Your task to perform on an android device: Go to Yahoo.com Image 0: 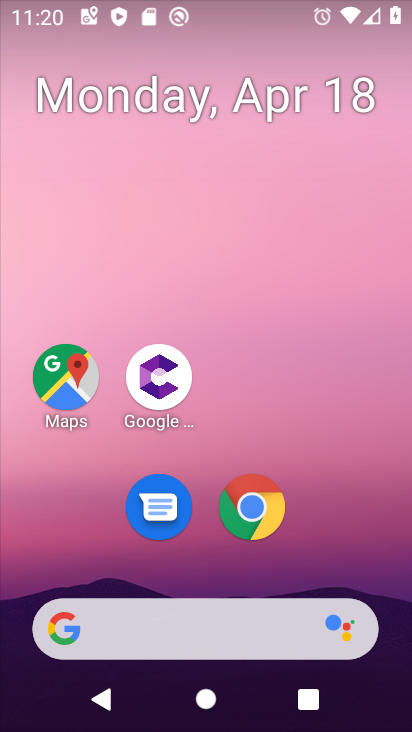
Step 0: drag from (360, 648) to (268, 240)
Your task to perform on an android device: Go to Yahoo.com Image 1: 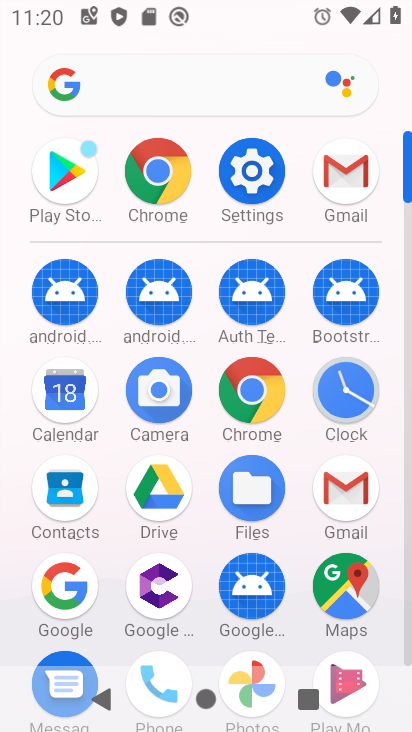
Step 1: click (153, 173)
Your task to perform on an android device: Go to Yahoo.com Image 2: 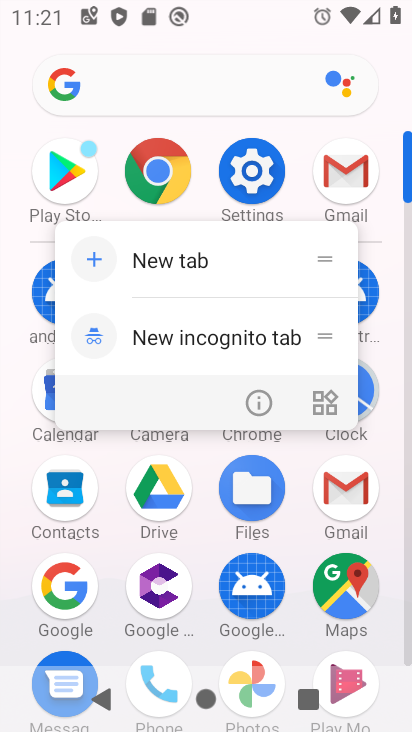
Step 2: click (138, 175)
Your task to perform on an android device: Go to Yahoo.com Image 3: 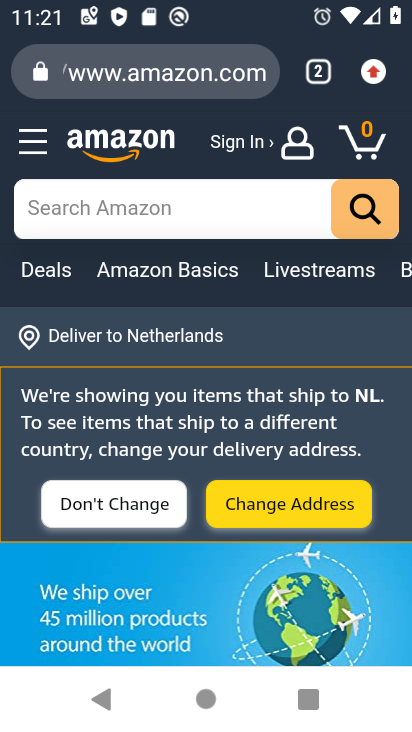
Step 3: click (318, 84)
Your task to perform on an android device: Go to Yahoo.com Image 4: 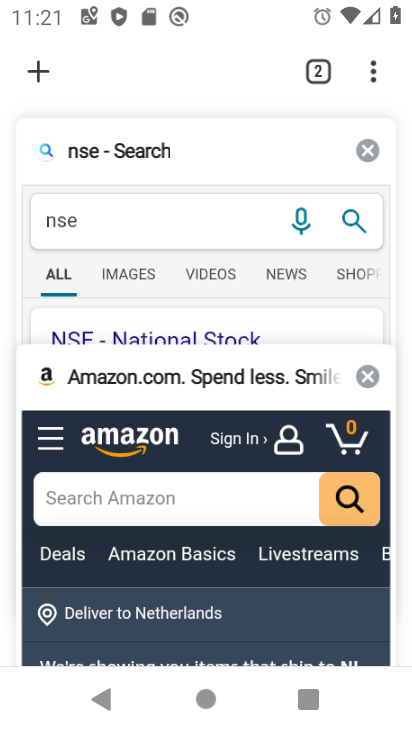
Step 4: click (31, 75)
Your task to perform on an android device: Go to Yahoo.com Image 5: 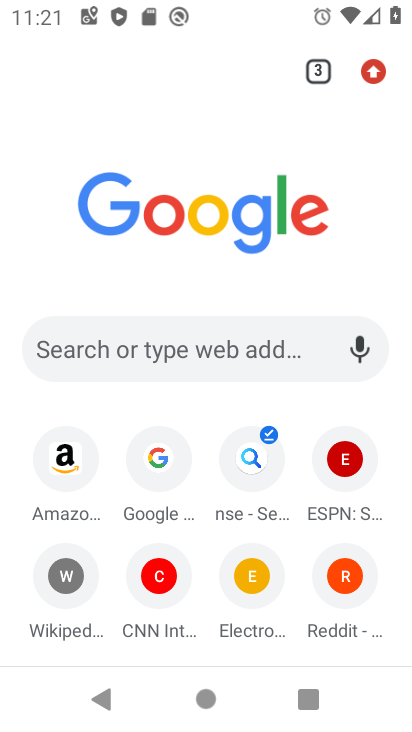
Step 5: click (160, 352)
Your task to perform on an android device: Go to Yahoo.com Image 6: 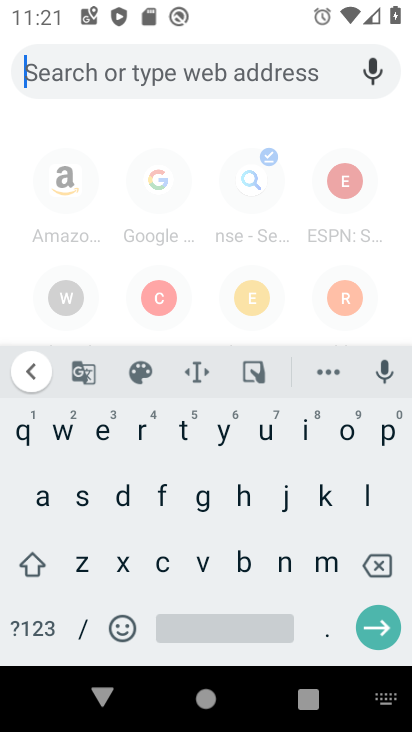
Step 6: click (231, 436)
Your task to perform on an android device: Go to Yahoo.com Image 7: 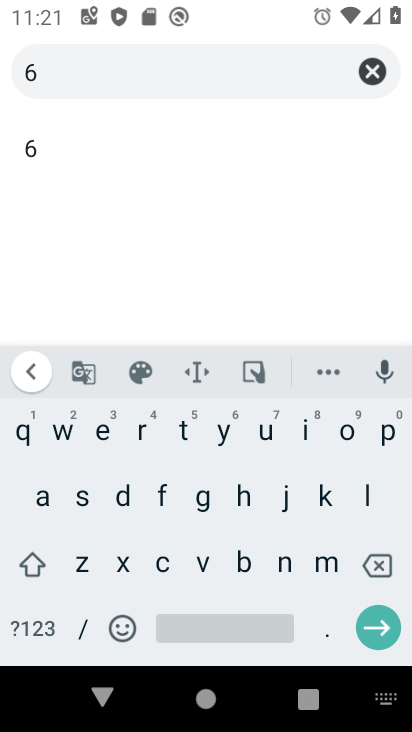
Step 7: click (374, 571)
Your task to perform on an android device: Go to Yahoo.com Image 8: 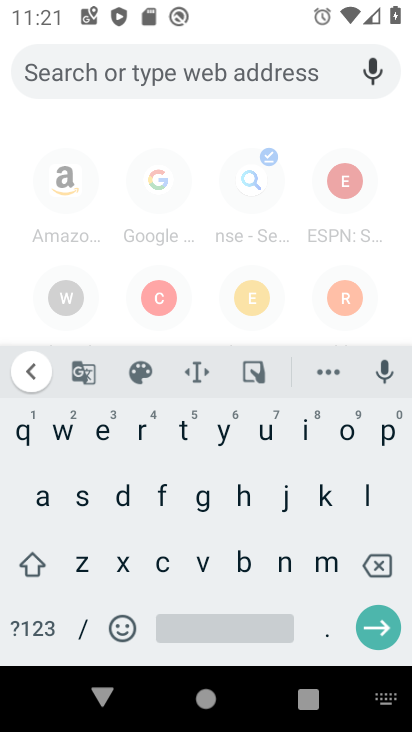
Step 8: click (221, 446)
Your task to perform on an android device: Go to Yahoo.com Image 9: 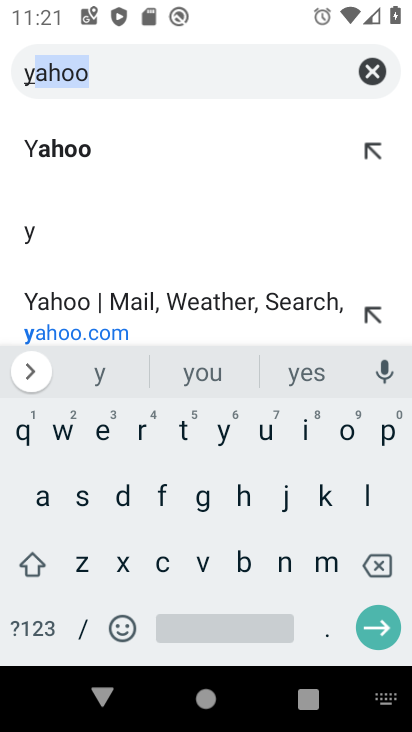
Step 9: click (72, 151)
Your task to perform on an android device: Go to Yahoo.com Image 10: 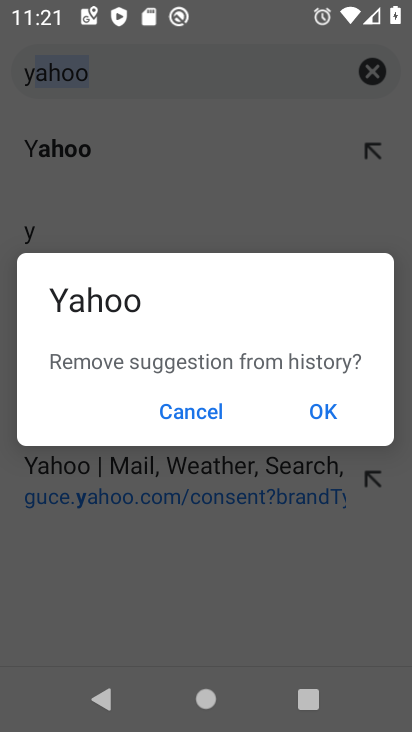
Step 10: click (320, 405)
Your task to perform on an android device: Go to Yahoo.com Image 11: 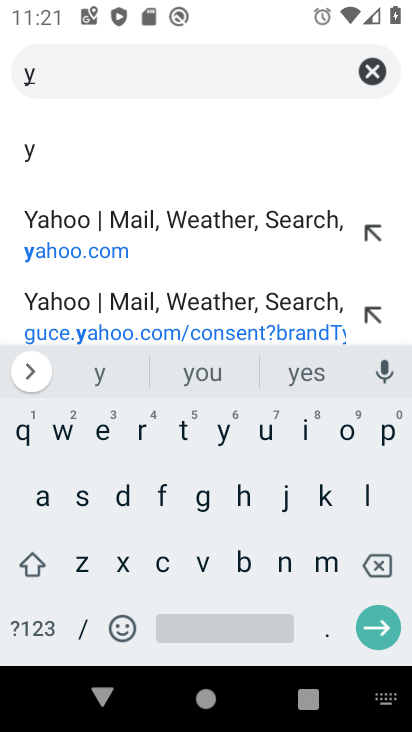
Step 11: click (154, 251)
Your task to perform on an android device: Go to Yahoo.com Image 12: 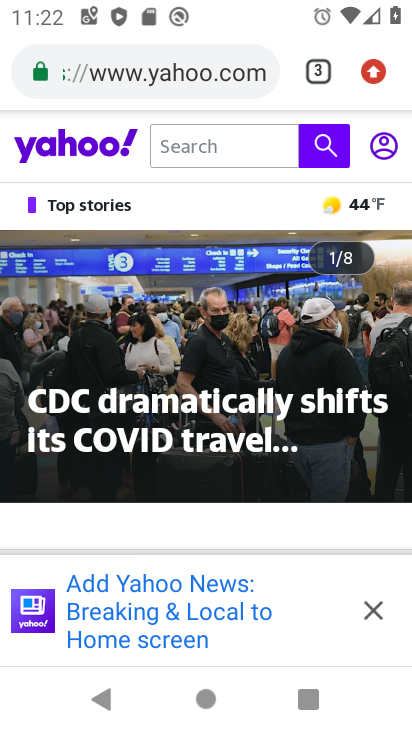
Step 12: task complete